Your task to perform on an android device: turn on airplane mode Image 0: 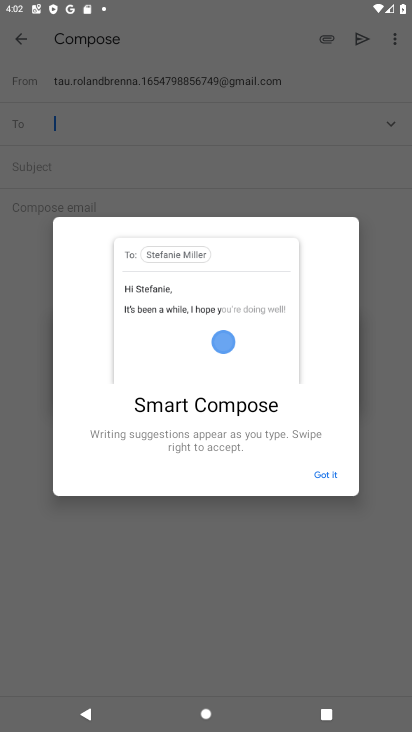
Step 0: press home button
Your task to perform on an android device: turn on airplane mode Image 1: 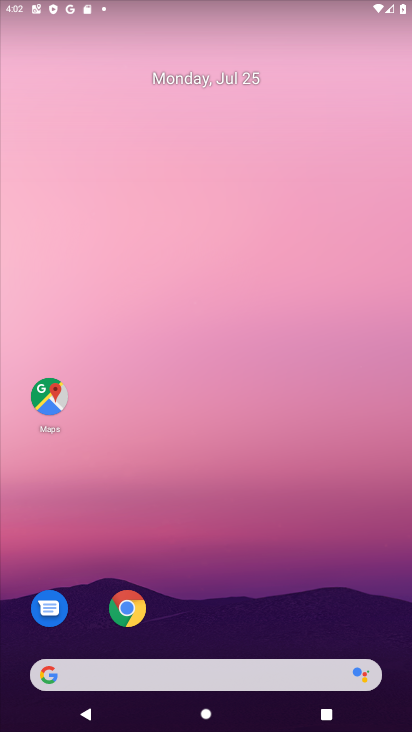
Step 1: drag from (274, 1) to (276, 626)
Your task to perform on an android device: turn on airplane mode Image 2: 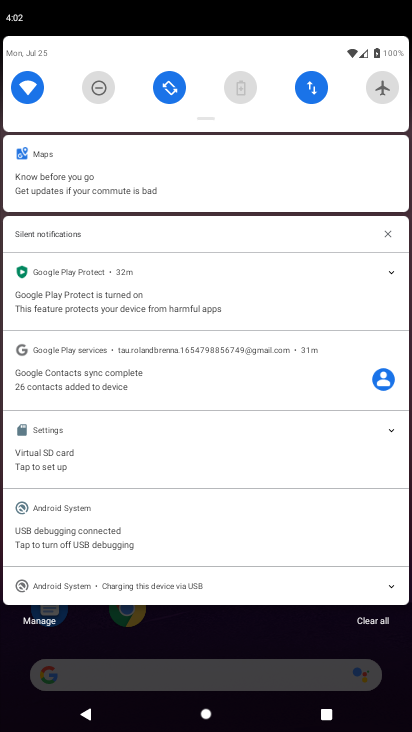
Step 2: click (375, 83)
Your task to perform on an android device: turn on airplane mode Image 3: 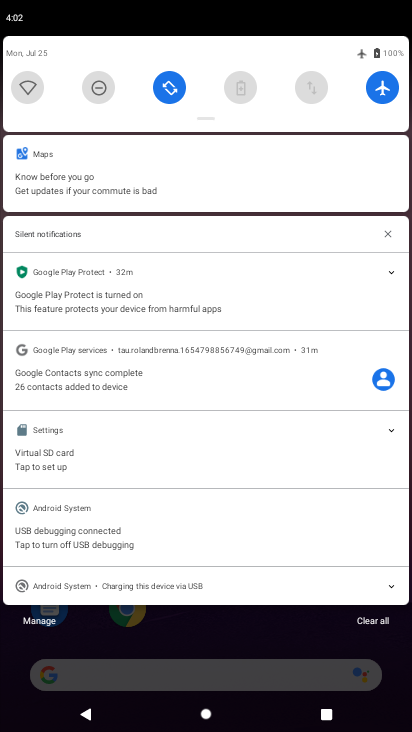
Step 3: task complete